Your task to perform on an android device: Open the web browser Image 0: 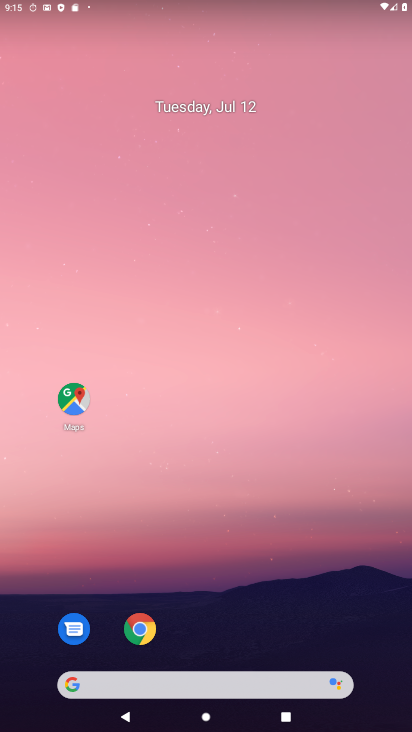
Step 0: drag from (265, 674) to (94, 3)
Your task to perform on an android device: Open the web browser Image 1: 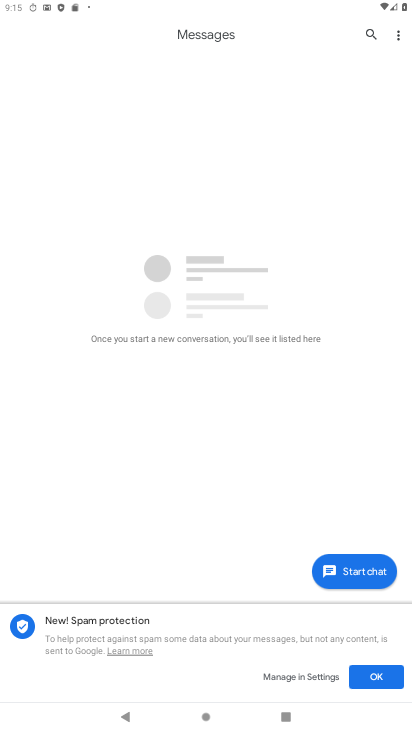
Step 1: press back button
Your task to perform on an android device: Open the web browser Image 2: 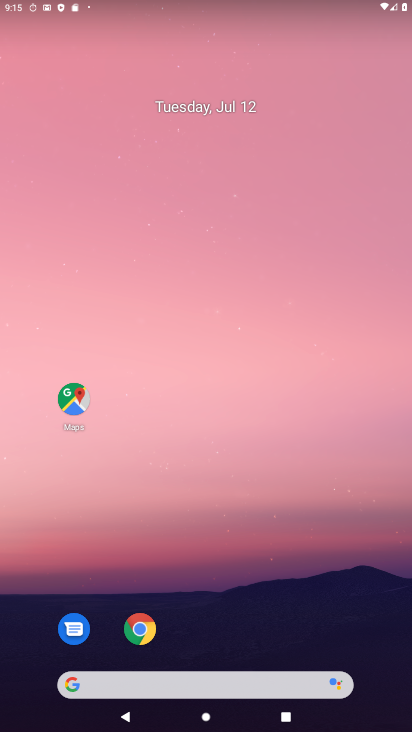
Step 2: drag from (243, 706) to (260, 43)
Your task to perform on an android device: Open the web browser Image 3: 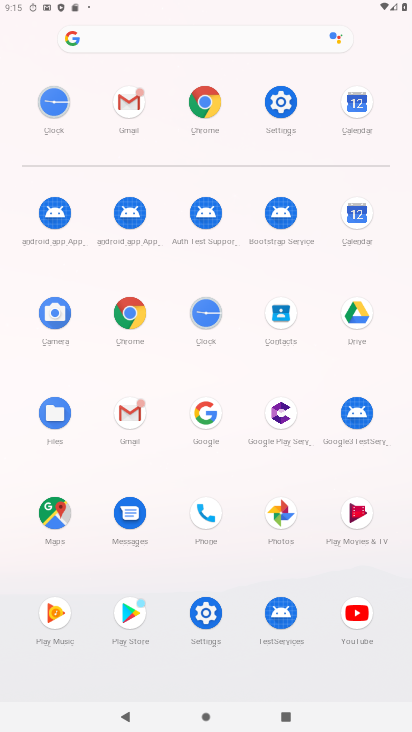
Step 3: click (201, 107)
Your task to perform on an android device: Open the web browser Image 4: 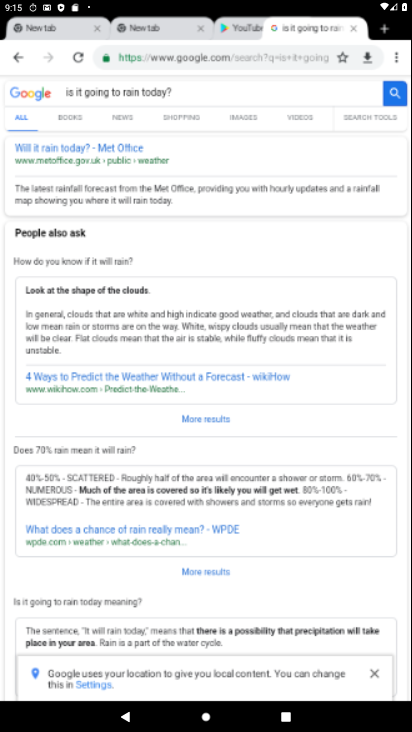
Step 4: click (203, 108)
Your task to perform on an android device: Open the web browser Image 5: 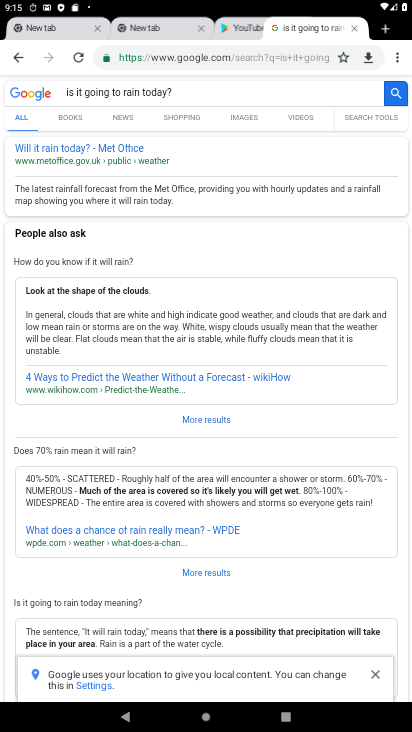
Step 5: task complete